Your task to perform on an android device: open a bookmark in the chrome app Image 0: 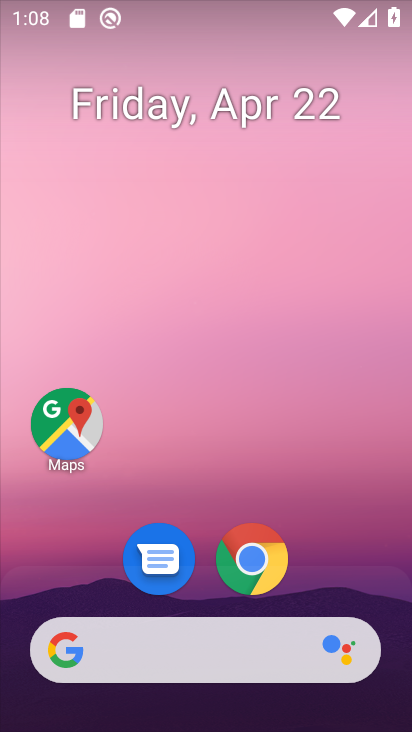
Step 0: click (264, 565)
Your task to perform on an android device: open a bookmark in the chrome app Image 1: 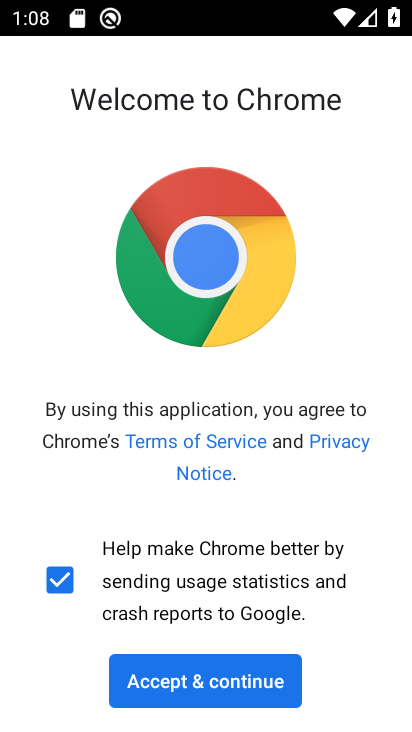
Step 1: click (221, 694)
Your task to perform on an android device: open a bookmark in the chrome app Image 2: 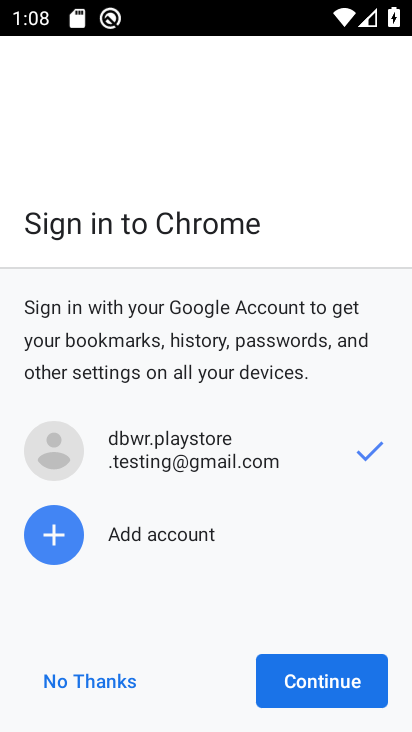
Step 2: click (300, 690)
Your task to perform on an android device: open a bookmark in the chrome app Image 3: 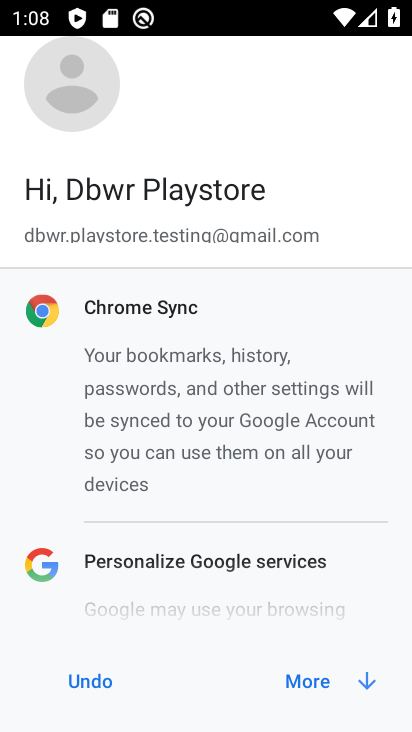
Step 3: click (300, 690)
Your task to perform on an android device: open a bookmark in the chrome app Image 4: 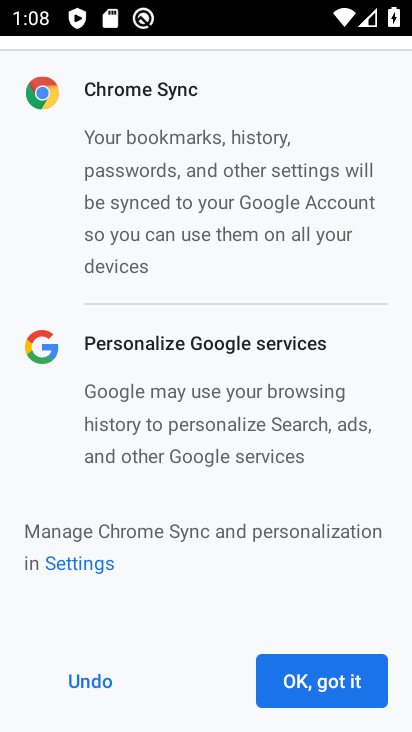
Step 4: click (334, 688)
Your task to perform on an android device: open a bookmark in the chrome app Image 5: 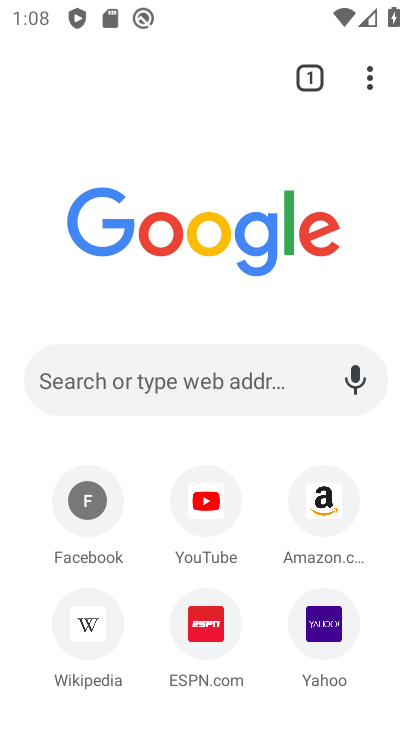
Step 5: click (375, 82)
Your task to perform on an android device: open a bookmark in the chrome app Image 6: 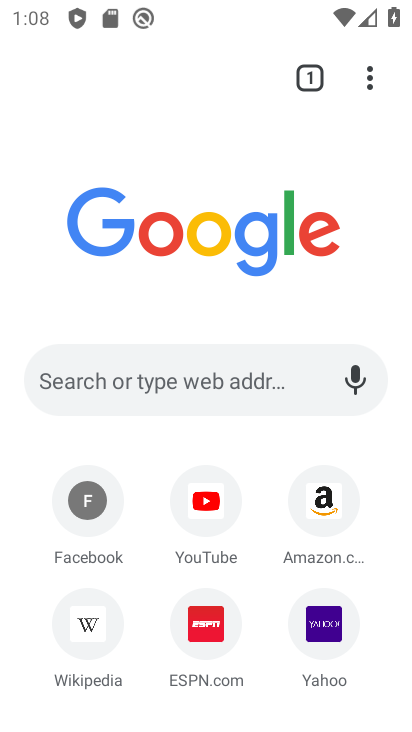
Step 6: click (372, 71)
Your task to perform on an android device: open a bookmark in the chrome app Image 7: 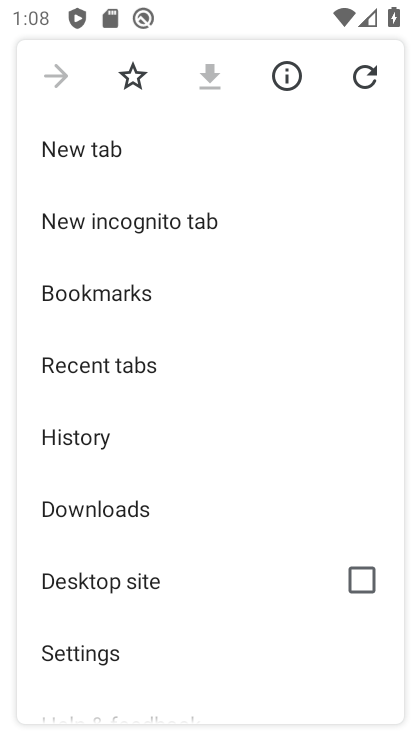
Step 7: click (126, 297)
Your task to perform on an android device: open a bookmark in the chrome app Image 8: 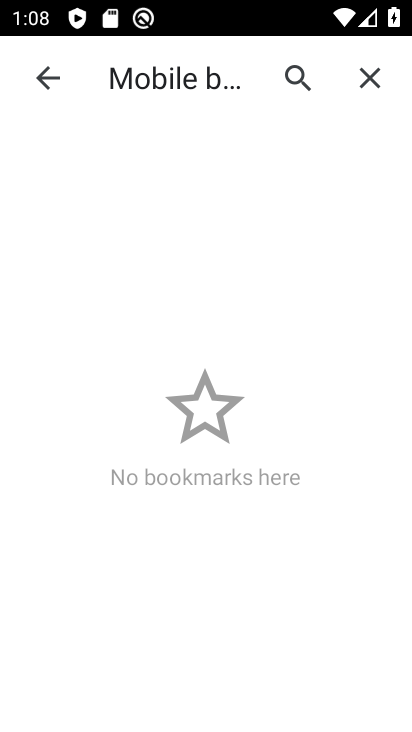
Step 8: task complete